Your task to perform on an android device: Go to battery settings Image 0: 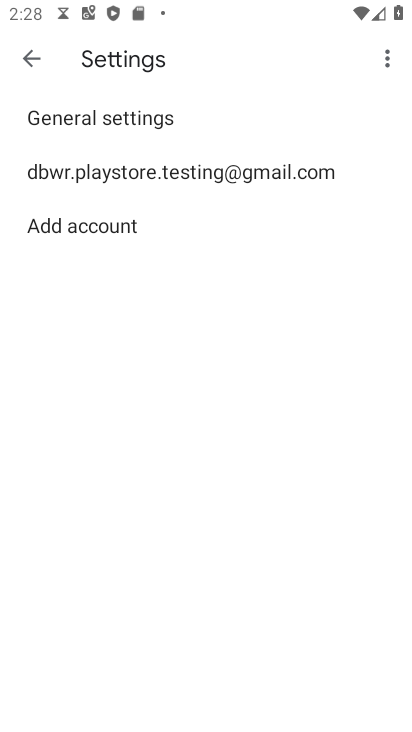
Step 0: press back button
Your task to perform on an android device: Go to battery settings Image 1: 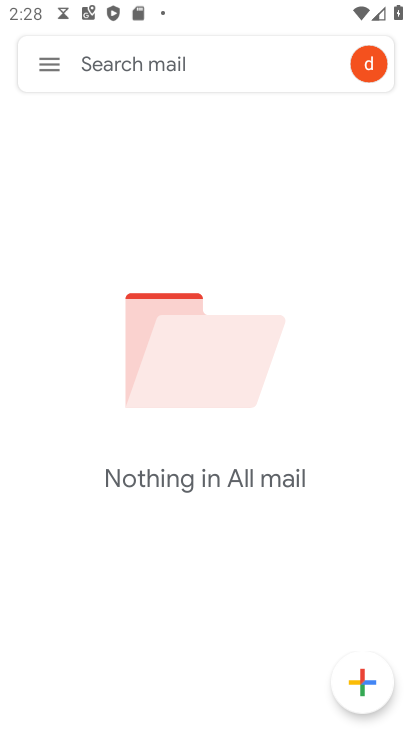
Step 1: press home button
Your task to perform on an android device: Go to battery settings Image 2: 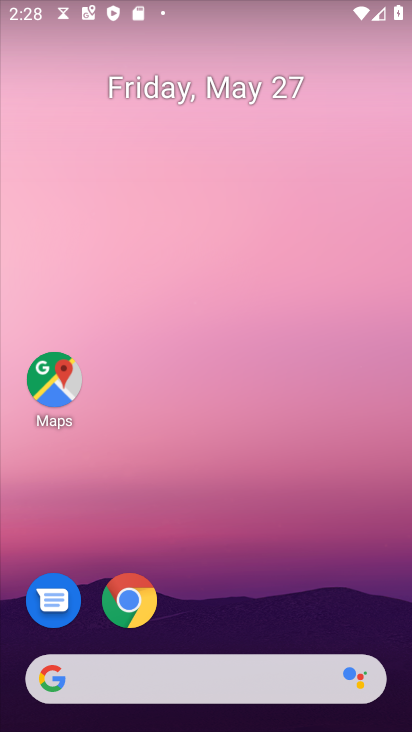
Step 2: drag from (229, 446) to (227, 31)
Your task to perform on an android device: Go to battery settings Image 3: 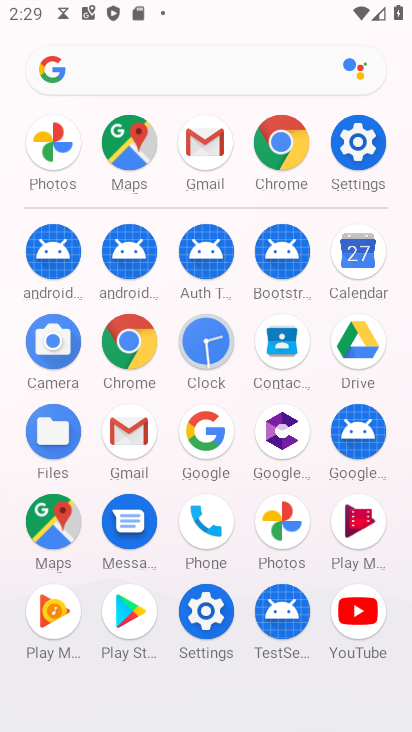
Step 3: drag from (9, 547) to (30, 203)
Your task to perform on an android device: Go to battery settings Image 4: 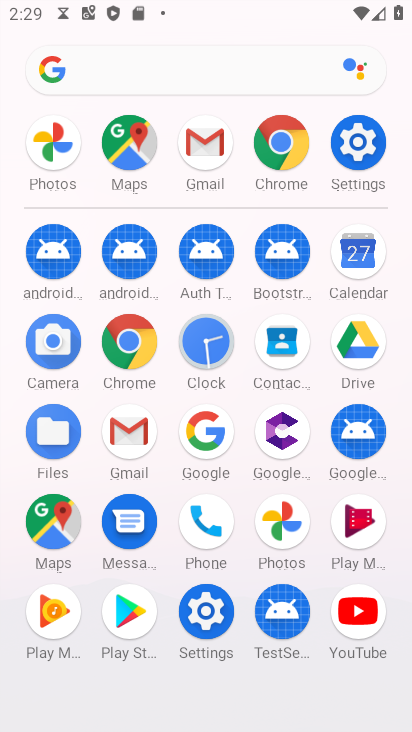
Step 4: click (200, 609)
Your task to perform on an android device: Go to battery settings Image 5: 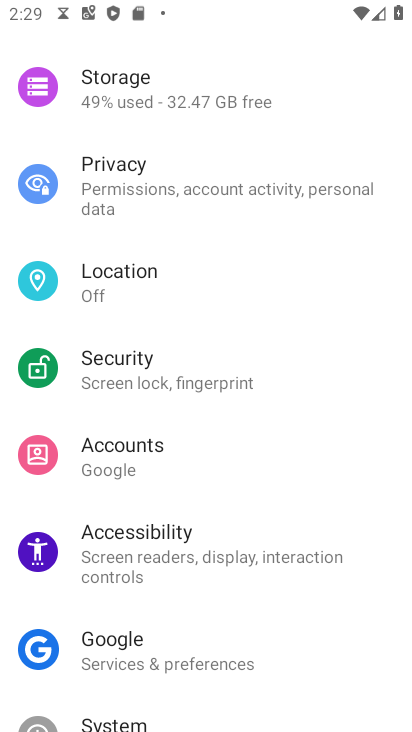
Step 5: drag from (303, 522) to (310, 172)
Your task to perform on an android device: Go to battery settings Image 6: 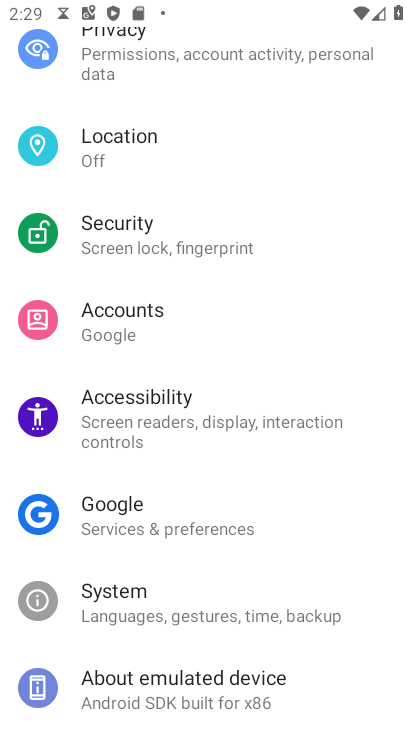
Step 6: drag from (219, 592) to (244, 164)
Your task to perform on an android device: Go to battery settings Image 7: 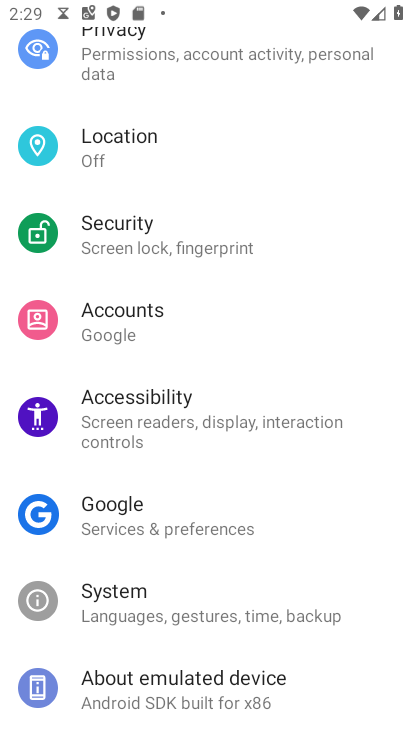
Step 7: drag from (217, 194) to (183, 659)
Your task to perform on an android device: Go to battery settings Image 8: 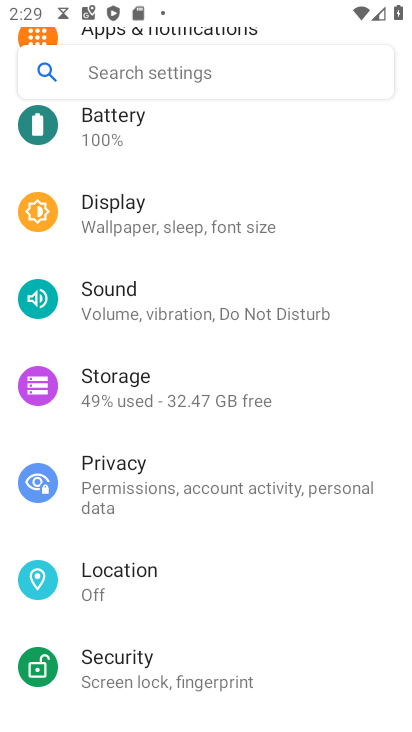
Step 8: drag from (241, 187) to (245, 506)
Your task to perform on an android device: Go to battery settings Image 9: 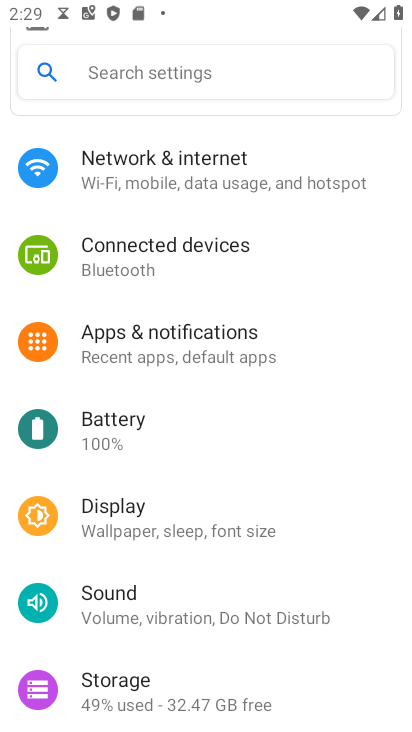
Step 9: click (148, 449)
Your task to perform on an android device: Go to battery settings Image 10: 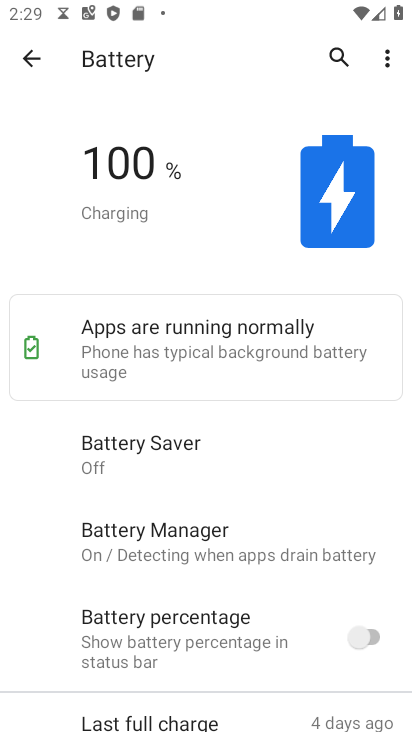
Step 10: task complete